Your task to perform on an android device: change timer sound Image 0: 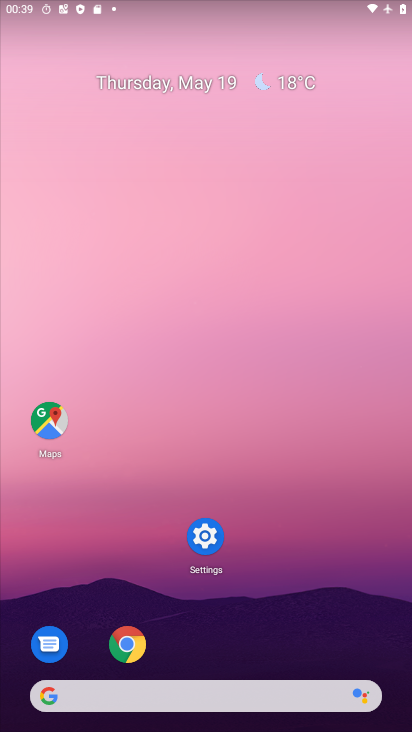
Step 0: drag from (340, 513) to (292, 189)
Your task to perform on an android device: change timer sound Image 1: 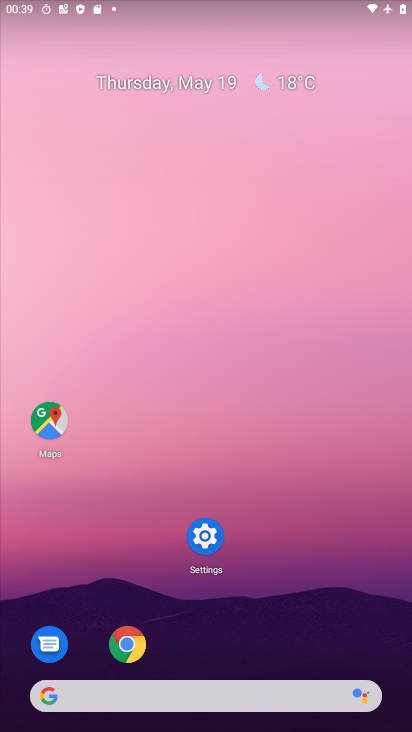
Step 1: drag from (316, 517) to (277, 159)
Your task to perform on an android device: change timer sound Image 2: 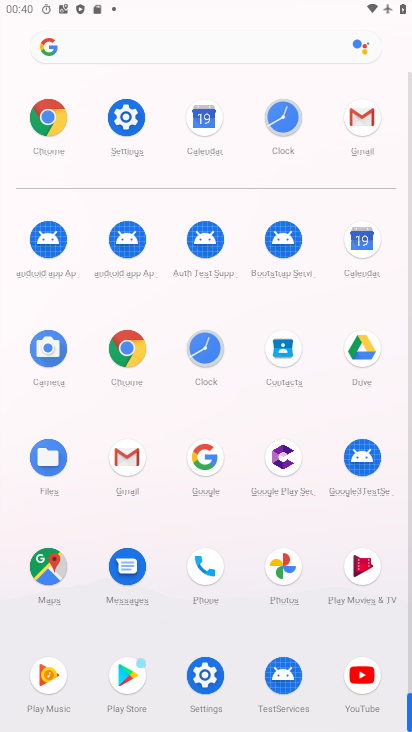
Step 2: click (213, 347)
Your task to perform on an android device: change timer sound Image 3: 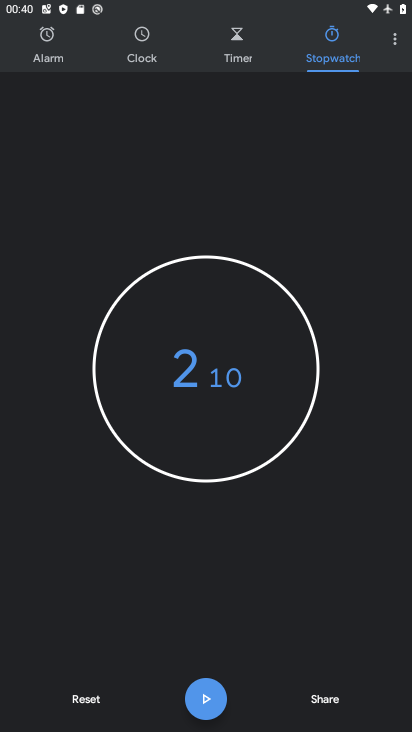
Step 3: click (395, 47)
Your task to perform on an android device: change timer sound Image 4: 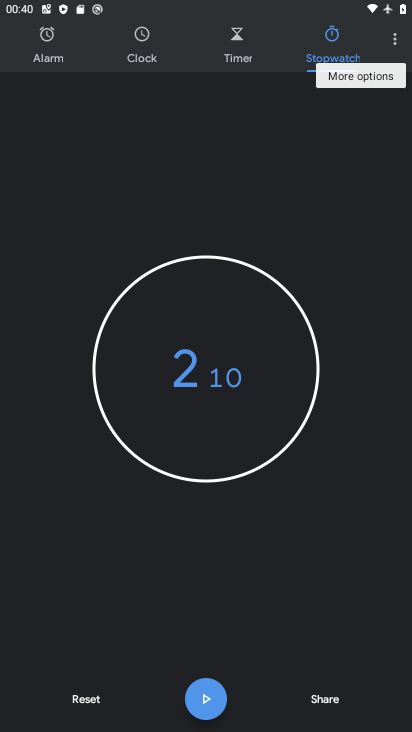
Step 4: drag from (390, 48) to (314, 92)
Your task to perform on an android device: change timer sound Image 5: 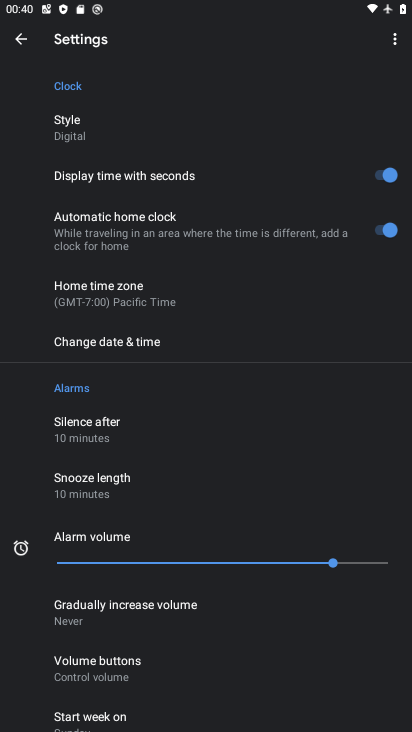
Step 5: drag from (166, 661) to (212, 315)
Your task to perform on an android device: change timer sound Image 6: 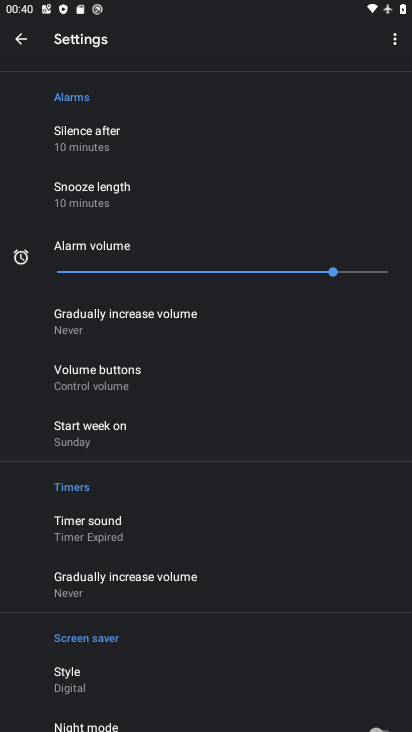
Step 6: click (90, 529)
Your task to perform on an android device: change timer sound Image 7: 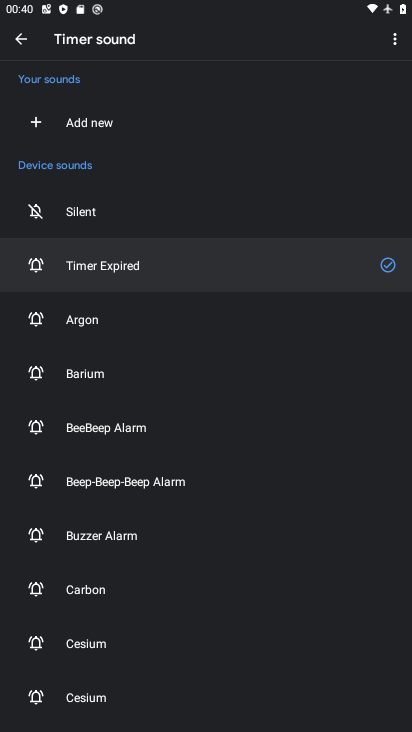
Step 7: click (91, 339)
Your task to perform on an android device: change timer sound Image 8: 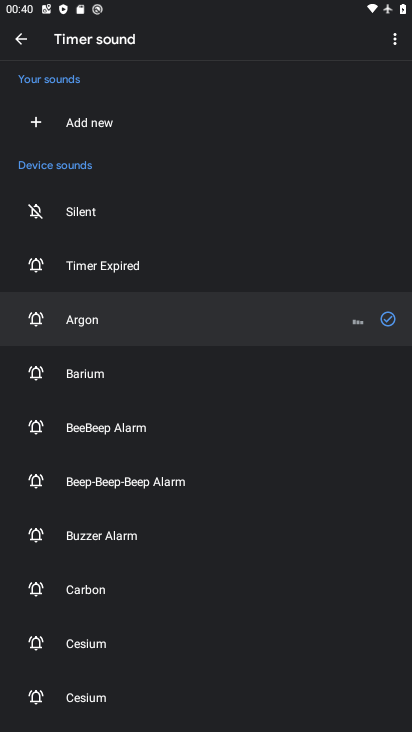
Step 8: task complete